Your task to perform on an android device: turn on data saver in the chrome app Image 0: 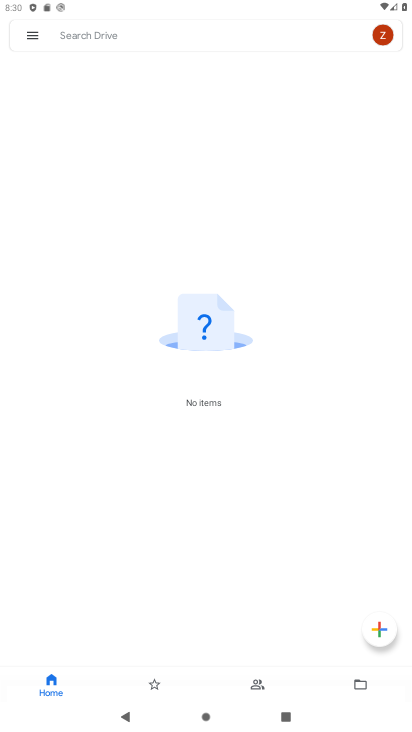
Step 0: press back button
Your task to perform on an android device: turn on data saver in the chrome app Image 1: 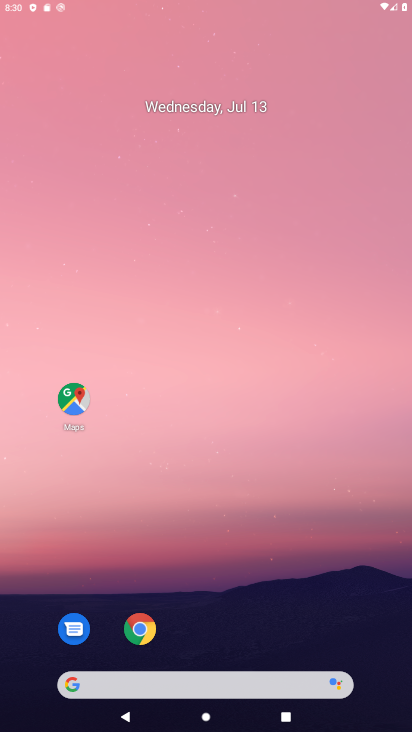
Step 1: press back button
Your task to perform on an android device: turn on data saver in the chrome app Image 2: 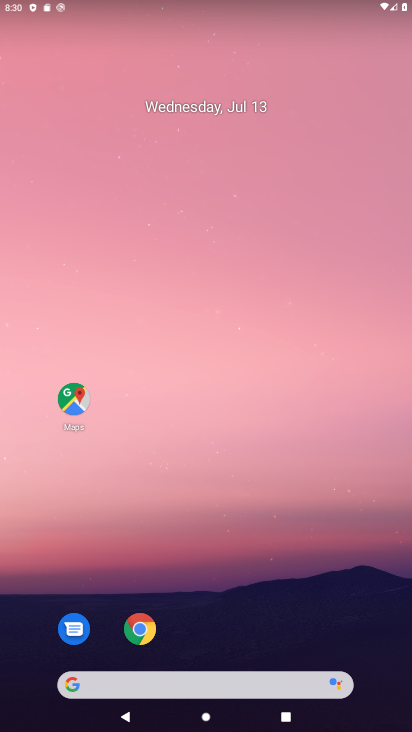
Step 2: click (142, 620)
Your task to perform on an android device: turn on data saver in the chrome app Image 3: 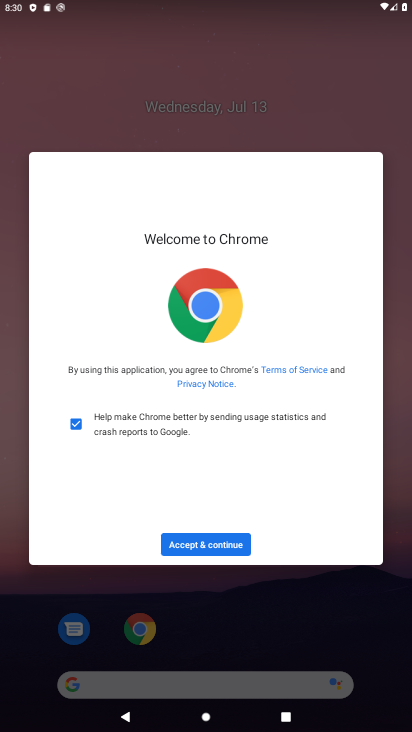
Step 3: click (226, 543)
Your task to perform on an android device: turn on data saver in the chrome app Image 4: 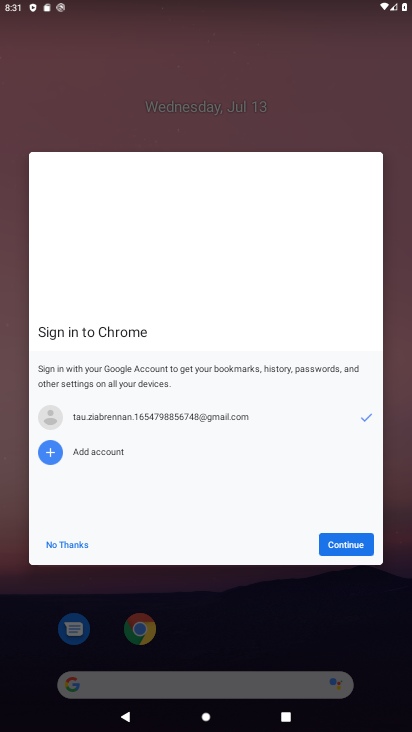
Step 4: click (329, 542)
Your task to perform on an android device: turn on data saver in the chrome app Image 5: 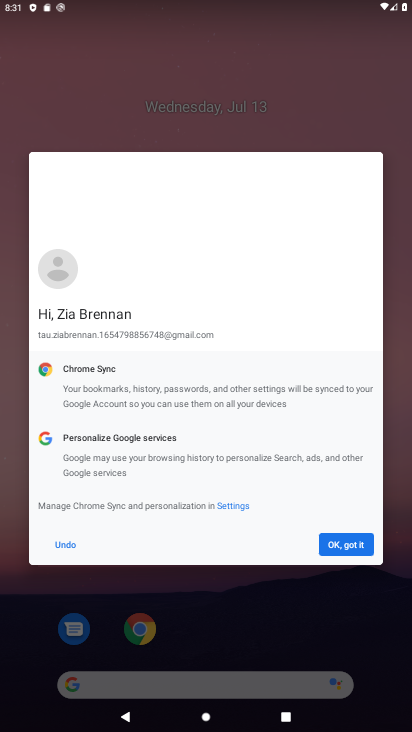
Step 5: click (342, 538)
Your task to perform on an android device: turn on data saver in the chrome app Image 6: 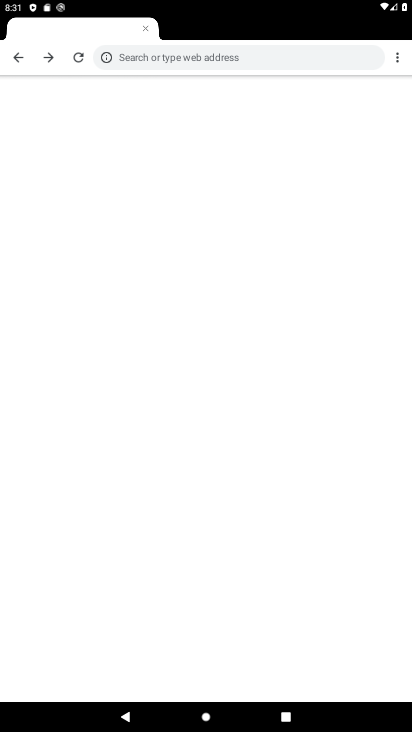
Step 6: press back button
Your task to perform on an android device: turn on data saver in the chrome app Image 7: 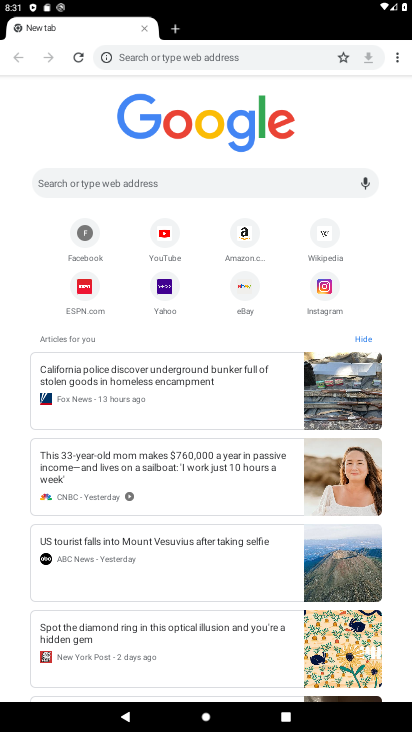
Step 7: drag from (394, 55) to (267, 266)
Your task to perform on an android device: turn on data saver in the chrome app Image 8: 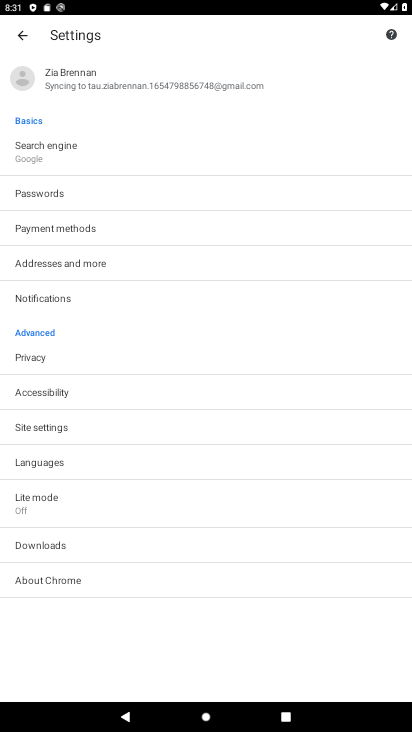
Step 8: click (42, 501)
Your task to perform on an android device: turn on data saver in the chrome app Image 9: 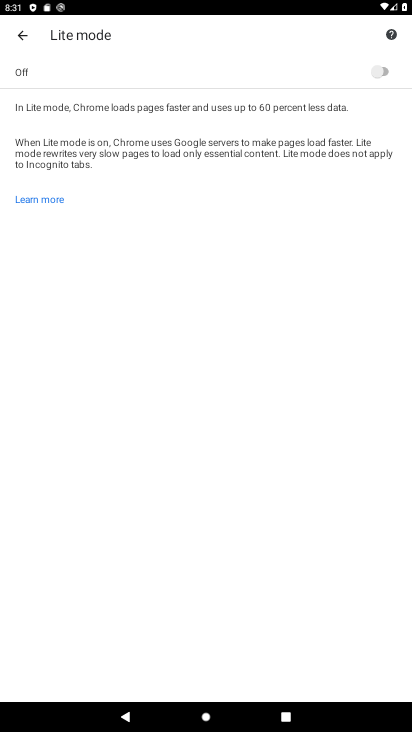
Step 9: click (379, 68)
Your task to perform on an android device: turn on data saver in the chrome app Image 10: 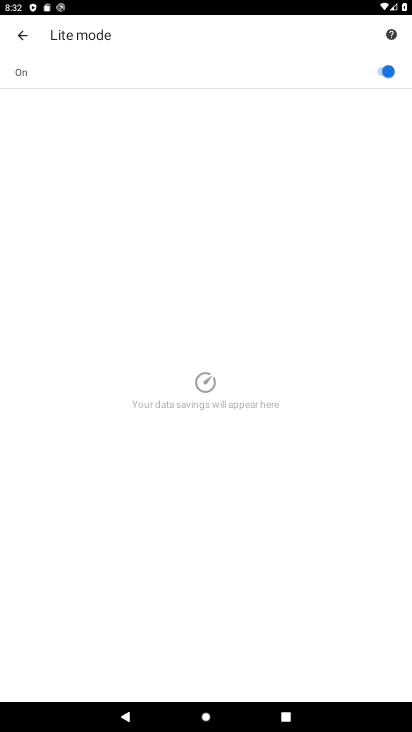
Step 10: task complete